Your task to perform on an android device: Open Android settings Image 0: 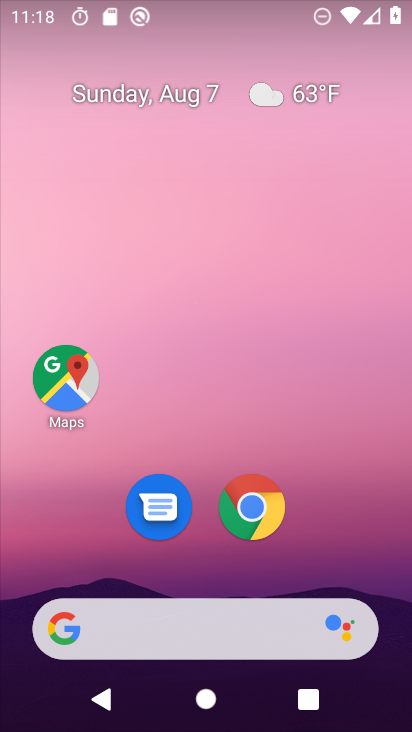
Step 0: drag from (362, 535) to (230, 1)
Your task to perform on an android device: Open Android settings Image 1: 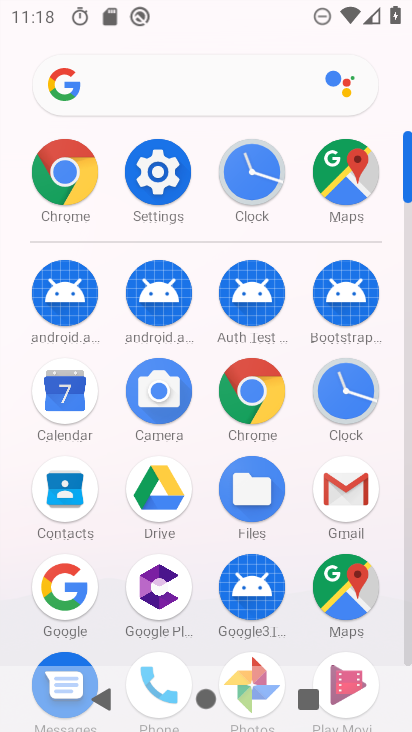
Step 1: click (162, 177)
Your task to perform on an android device: Open Android settings Image 2: 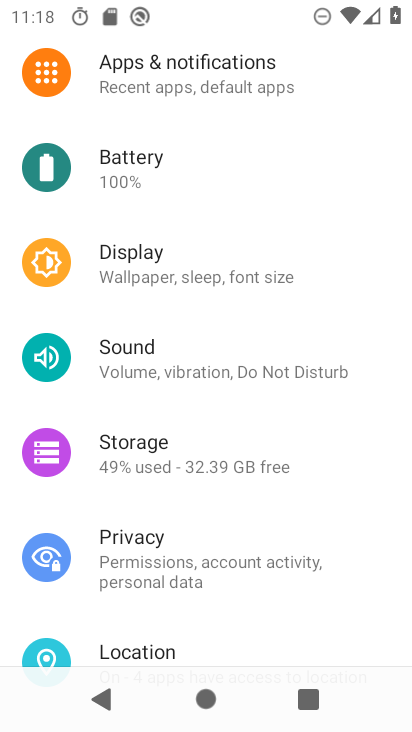
Step 2: task complete